Your task to perform on an android device: turn off notifications in google photos Image 0: 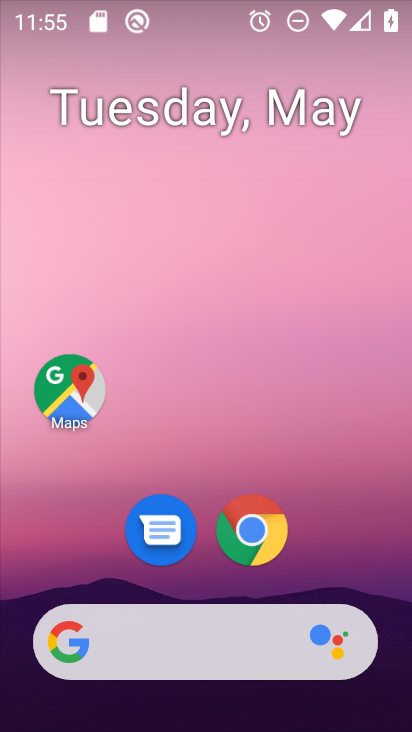
Step 0: drag from (354, 532) to (313, 78)
Your task to perform on an android device: turn off notifications in google photos Image 1: 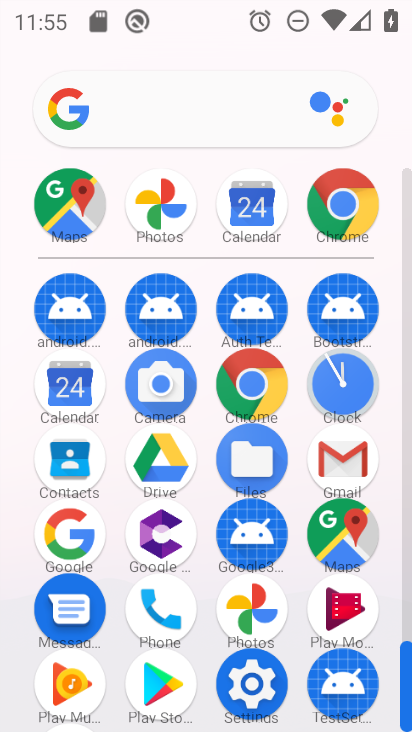
Step 1: click (162, 215)
Your task to perform on an android device: turn off notifications in google photos Image 2: 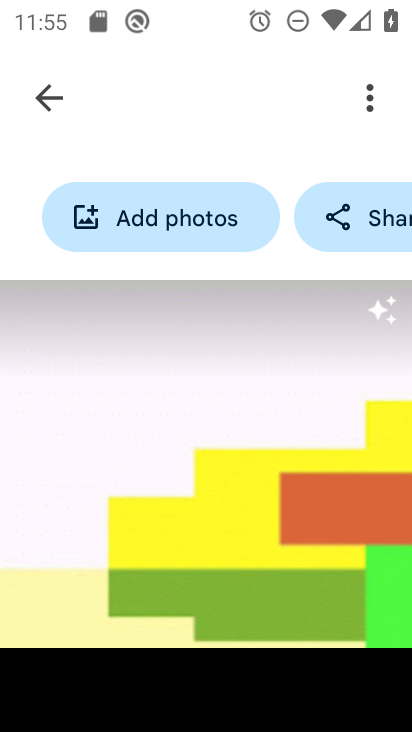
Step 2: click (48, 116)
Your task to perform on an android device: turn off notifications in google photos Image 3: 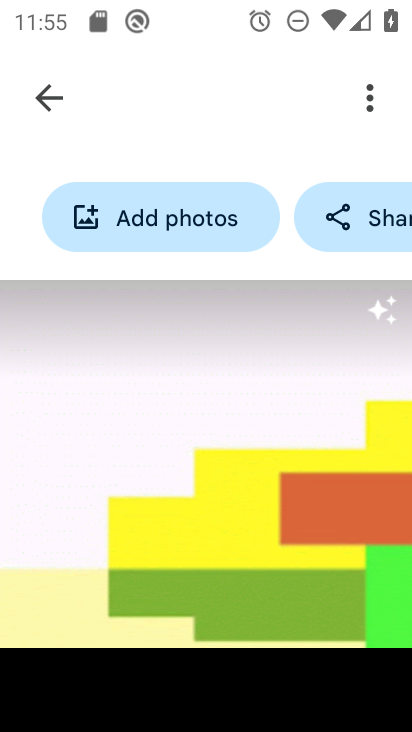
Step 3: click (43, 87)
Your task to perform on an android device: turn off notifications in google photos Image 4: 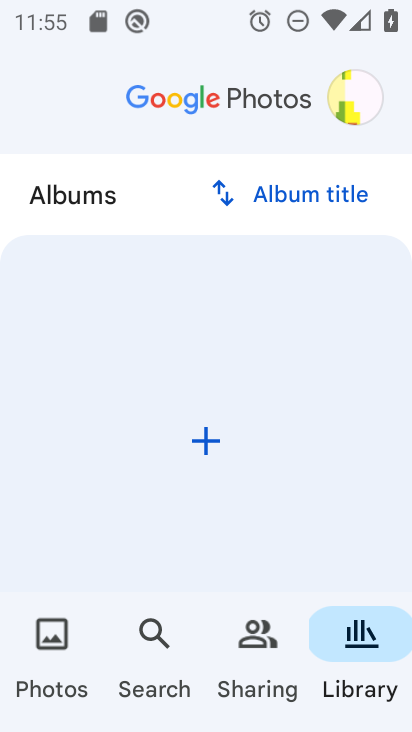
Step 4: click (368, 104)
Your task to perform on an android device: turn off notifications in google photos Image 5: 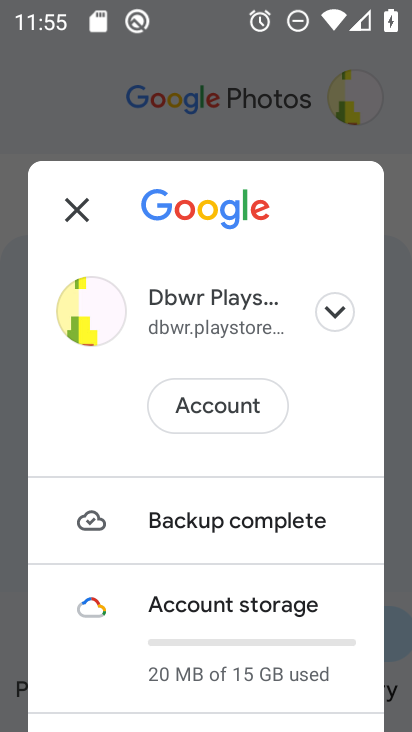
Step 5: drag from (245, 565) to (351, 91)
Your task to perform on an android device: turn off notifications in google photos Image 6: 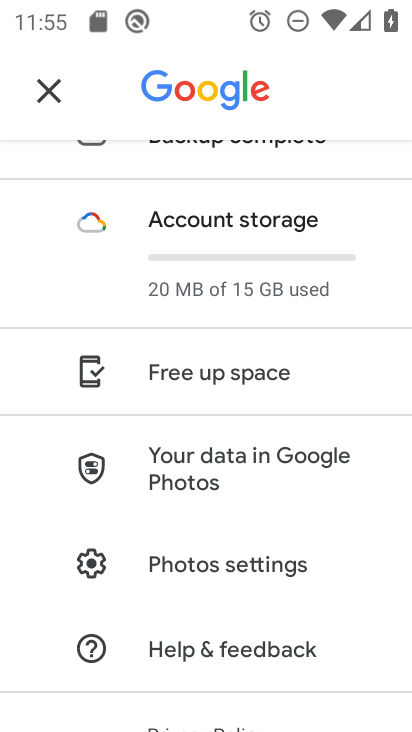
Step 6: click (239, 560)
Your task to perform on an android device: turn off notifications in google photos Image 7: 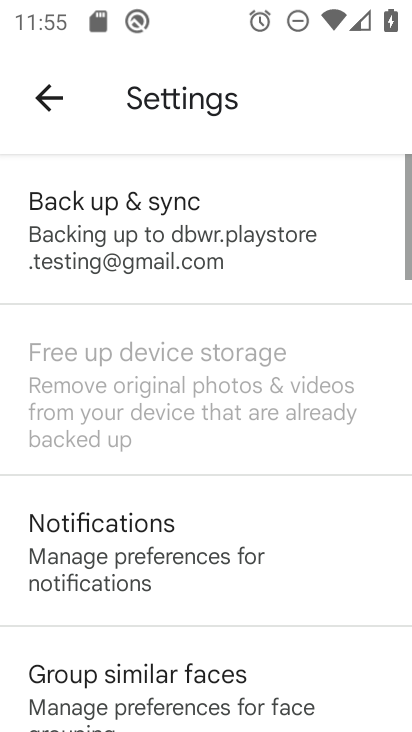
Step 7: drag from (238, 530) to (303, 211)
Your task to perform on an android device: turn off notifications in google photos Image 8: 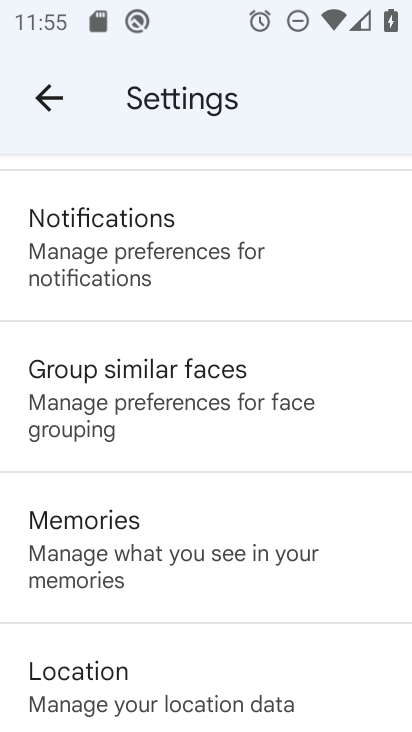
Step 8: click (205, 267)
Your task to perform on an android device: turn off notifications in google photos Image 9: 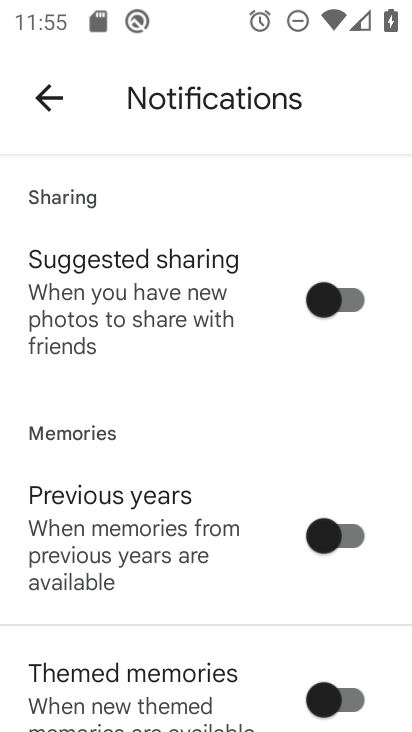
Step 9: click (51, 86)
Your task to perform on an android device: turn off notifications in google photos Image 10: 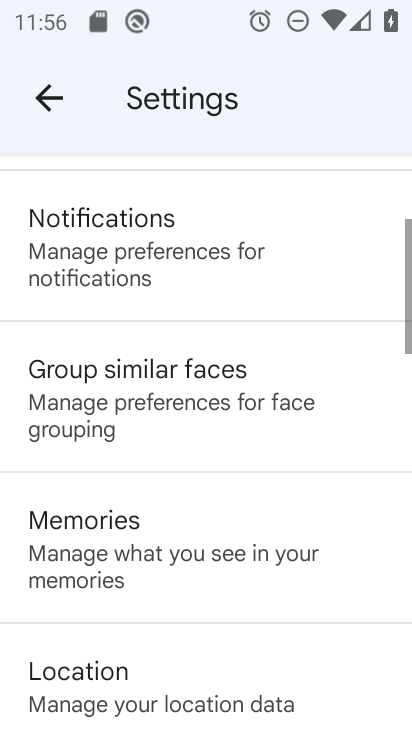
Step 10: drag from (179, 526) to (409, 93)
Your task to perform on an android device: turn off notifications in google photos Image 11: 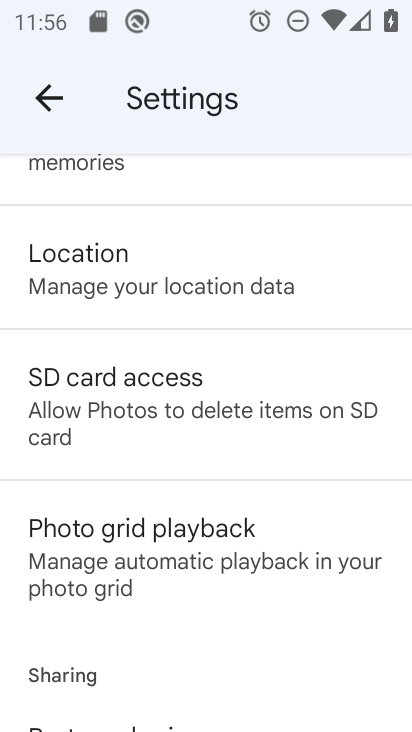
Step 11: drag from (291, 578) to (243, 597)
Your task to perform on an android device: turn off notifications in google photos Image 12: 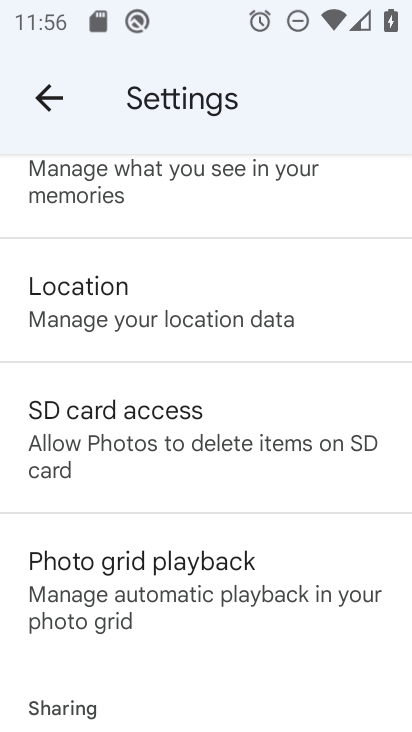
Step 12: drag from (258, 325) to (237, 634)
Your task to perform on an android device: turn off notifications in google photos Image 13: 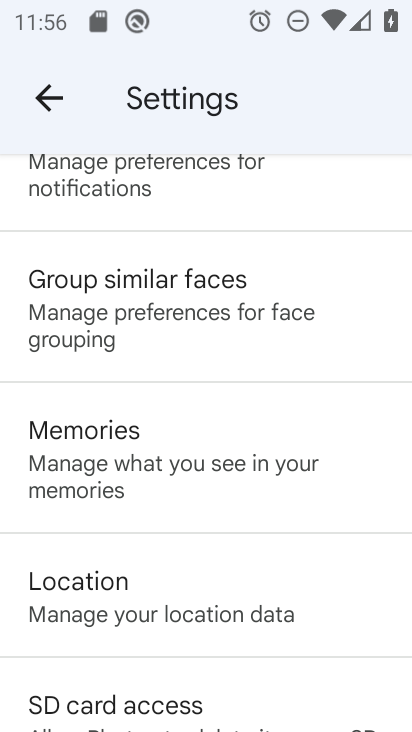
Step 13: drag from (285, 356) to (262, 650)
Your task to perform on an android device: turn off notifications in google photos Image 14: 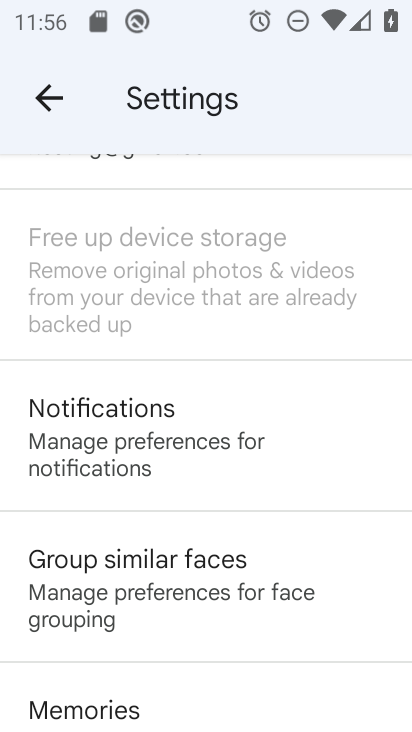
Step 14: click (248, 474)
Your task to perform on an android device: turn off notifications in google photos Image 15: 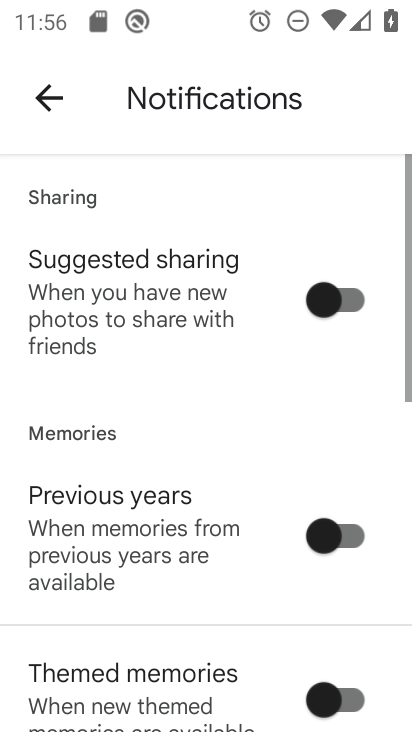
Step 15: drag from (211, 600) to (286, 55)
Your task to perform on an android device: turn off notifications in google photos Image 16: 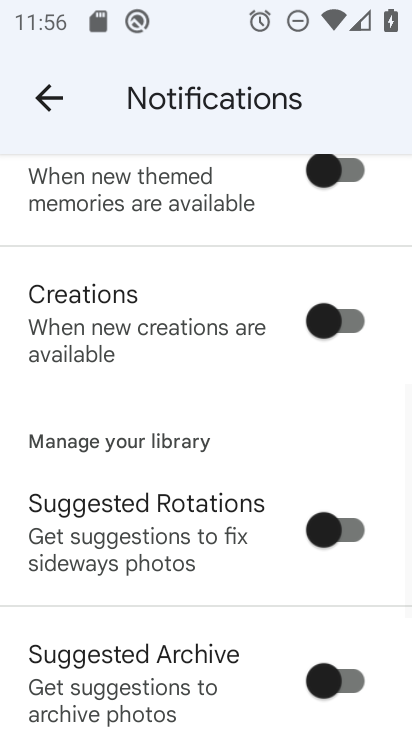
Step 16: drag from (128, 605) to (294, 140)
Your task to perform on an android device: turn off notifications in google photos Image 17: 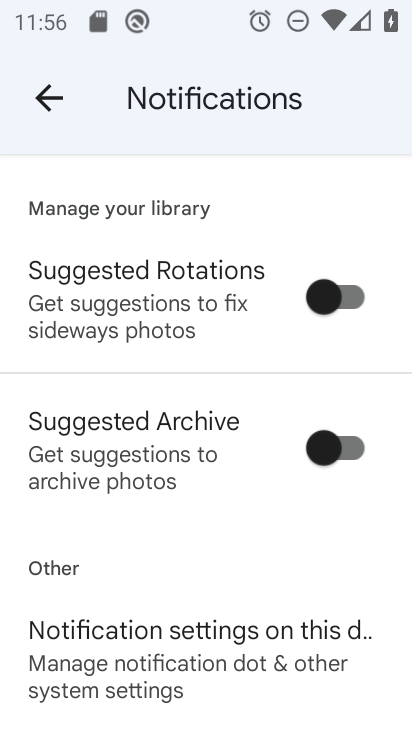
Step 17: click (182, 643)
Your task to perform on an android device: turn off notifications in google photos Image 18: 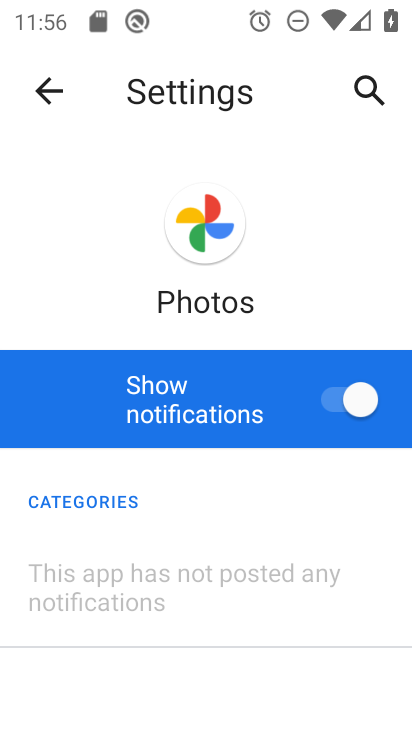
Step 18: click (362, 412)
Your task to perform on an android device: turn off notifications in google photos Image 19: 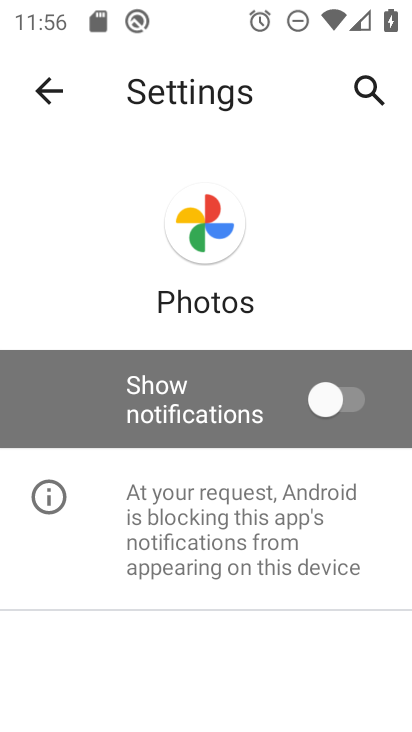
Step 19: task complete